Your task to perform on an android device: toggle airplane mode Image 0: 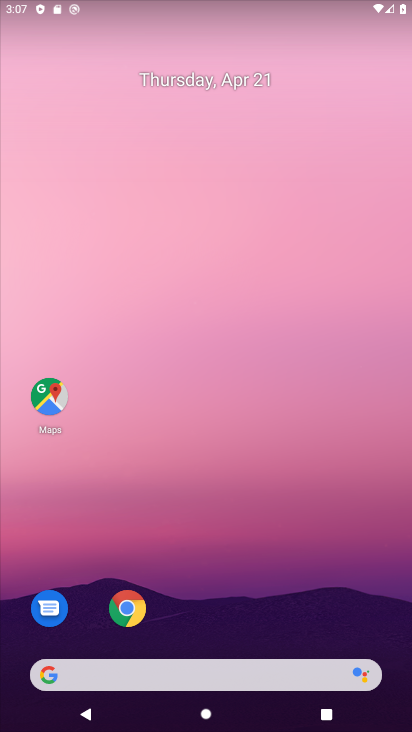
Step 0: drag from (218, 578) to (176, 162)
Your task to perform on an android device: toggle airplane mode Image 1: 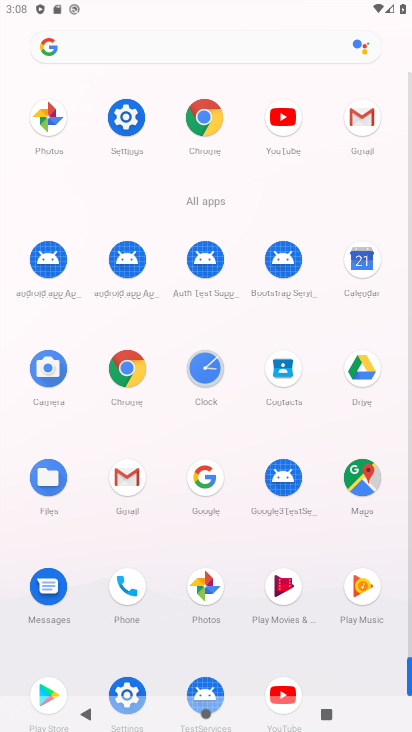
Step 1: click (115, 119)
Your task to perform on an android device: toggle airplane mode Image 2: 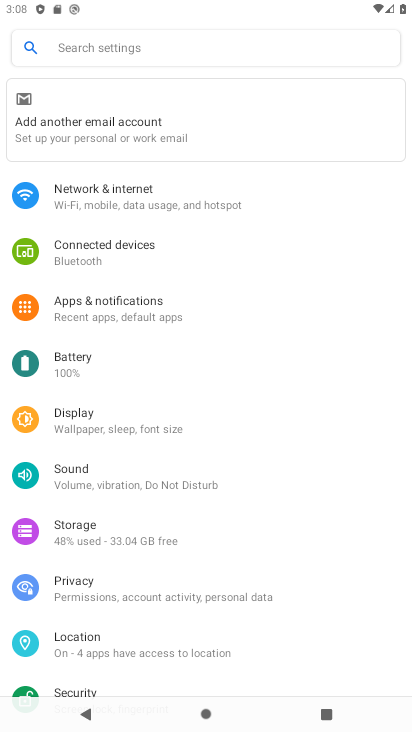
Step 2: click (112, 200)
Your task to perform on an android device: toggle airplane mode Image 3: 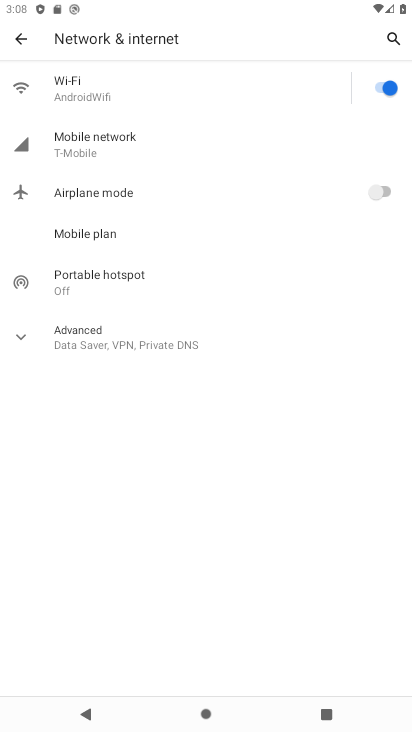
Step 3: click (391, 191)
Your task to perform on an android device: toggle airplane mode Image 4: 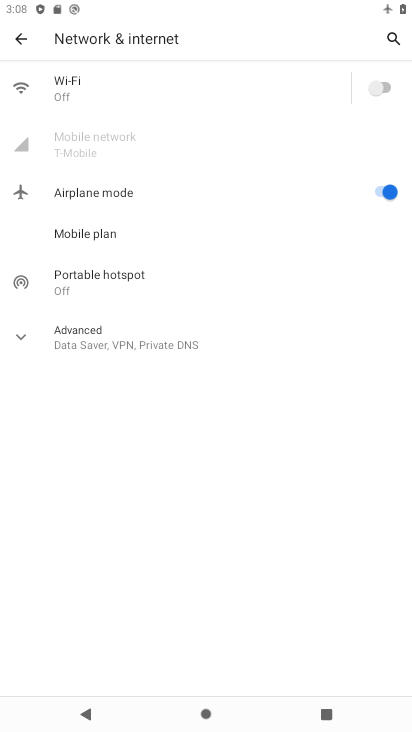
Step 4: task complete